Your task to perform on an android device: What's the weather going to be tomorrow? Image 0: 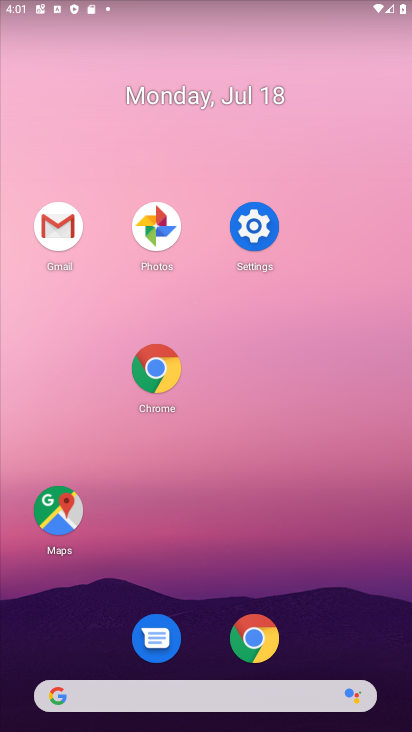
Step 0: drag from (341, 629) to (359, 121)
Your task to perform on an android device: What's the weather going to be tomorrow? Image 1: 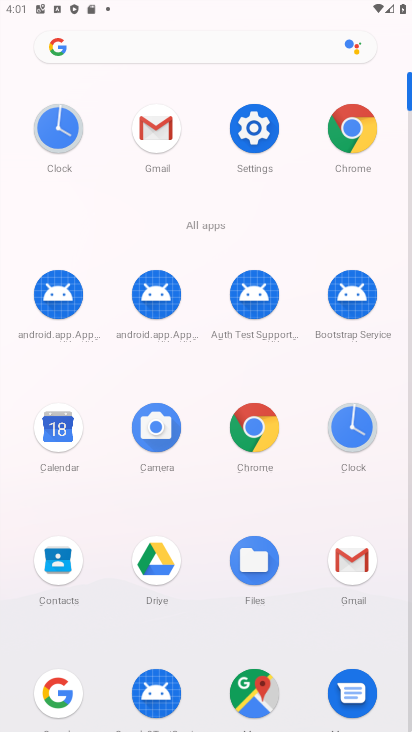
Step 1: click (249, 422)
Your task to perform on an android device: What's the weather going to be tomorrow? Image 2: 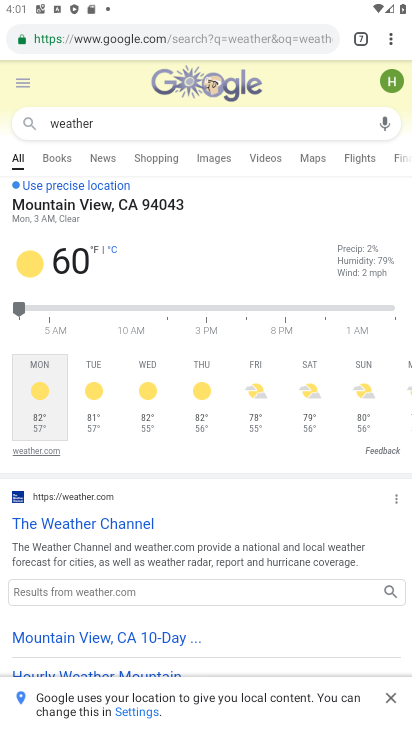
Step 2: click (99, 401)
Your task to perform on an android device: What's the weather going to be tomorrow? Image 3: 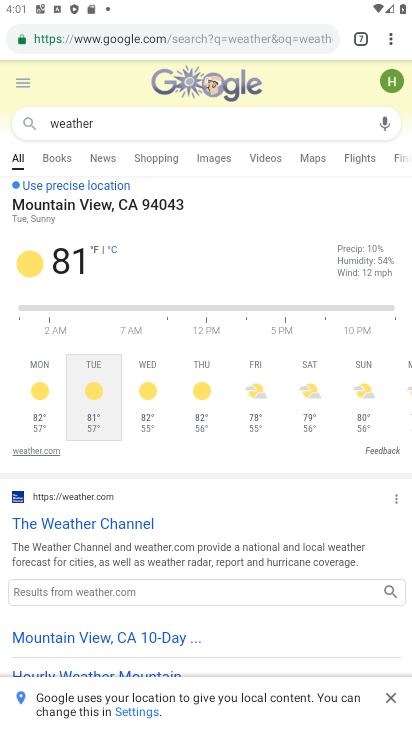
Step 3: task complete